Your task to perform on an android device: Clear the shopping cart on newegg.com. Add amazon basics triple a to the cart on newegg.com, then select checkout. Image 0: 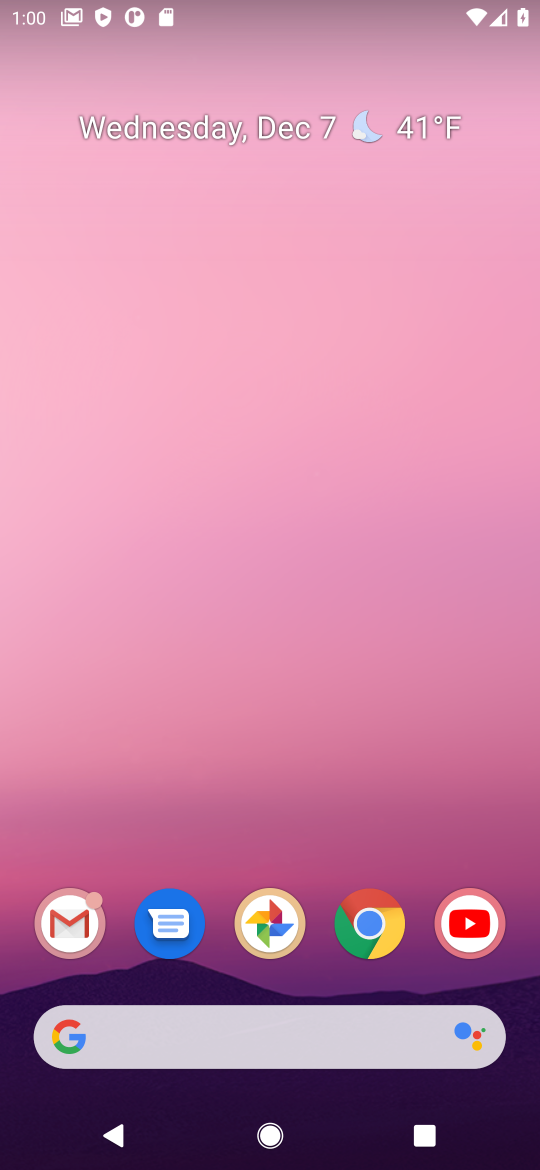
Step 0: task complete